Your task to perform on an android device: Search for seafood restaurants on Google Maps Image 0: 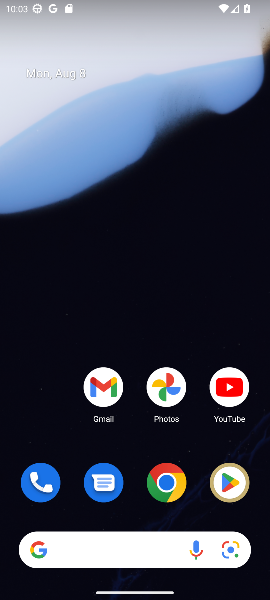
Step 0: drag from (173, 447) to (185, 130)
Your task to perform on an android device: Search for seafood restaurants on Google Maps Image 1: 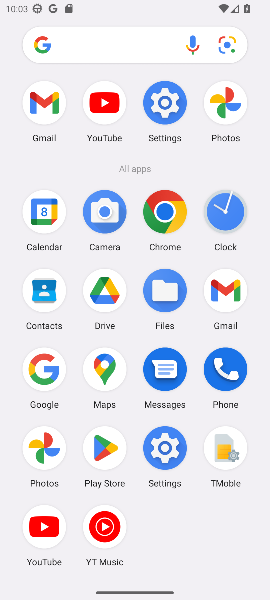
Step 1: click (104, 370)
Your task to perform on an android device: Search for seafood restaurants on Google Maps Image 2: 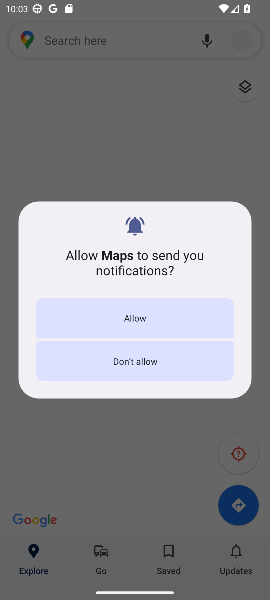
Step 2: click (151, 319)
Your task to perform on an android device: Search for seafood restaurants on Google Maps Image 3: 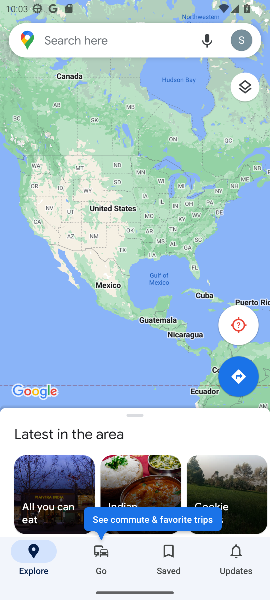
Step 3: click (76, 47)
Your task to perform on an android device: Search for seafood restaurants on Google Maps Image 4: 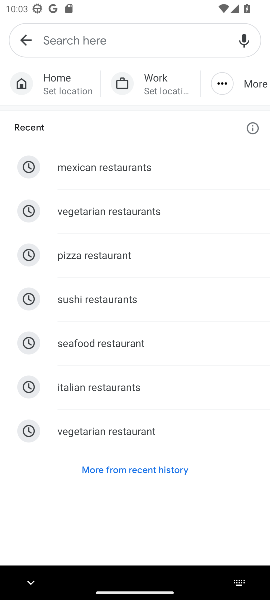
Step 4: type "seafood restaurants"
Your task to perform on an android device: Search for seafood restaurants on Google Maps Image 5: 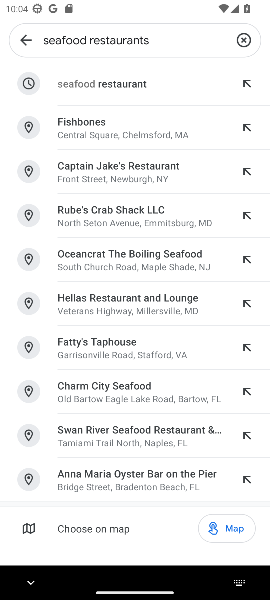
Step 5: click (108, 80)
Your task to perform on an android device: Search for seafood restaurants on Google Maps Image 6: 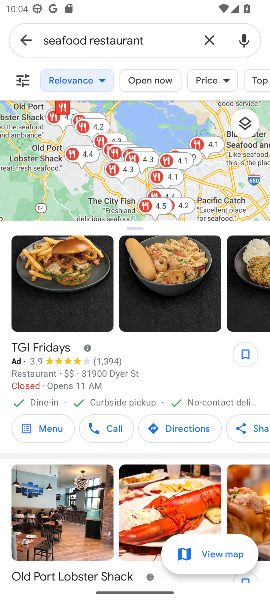
Step 6: task complete